Your task to perform on an android device: empty trash in the gmail app Image 0: 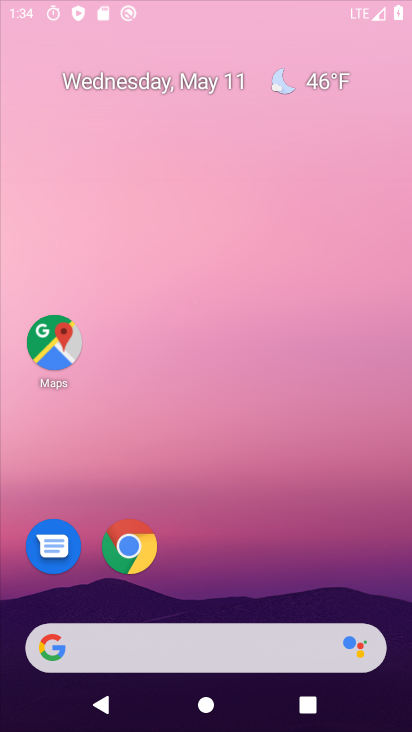
Step 0: drag from (257, 473) to (216, 207)
Your task to perform on an android device: empty trash in the gmail app Image 1: 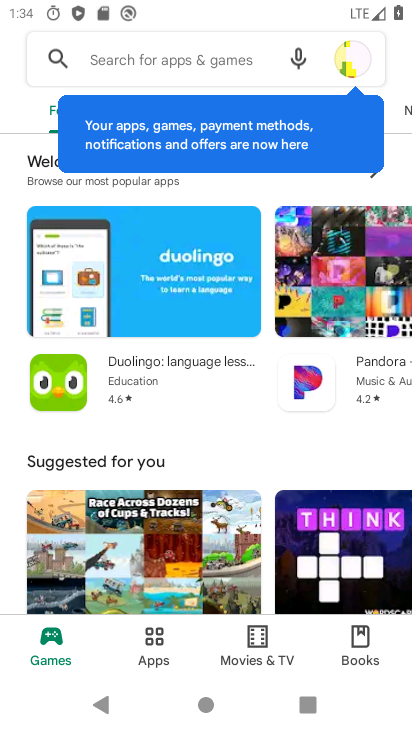
Step 1: press home button
Your task to perform on an android device: empty trash in the gmail app Image 2: 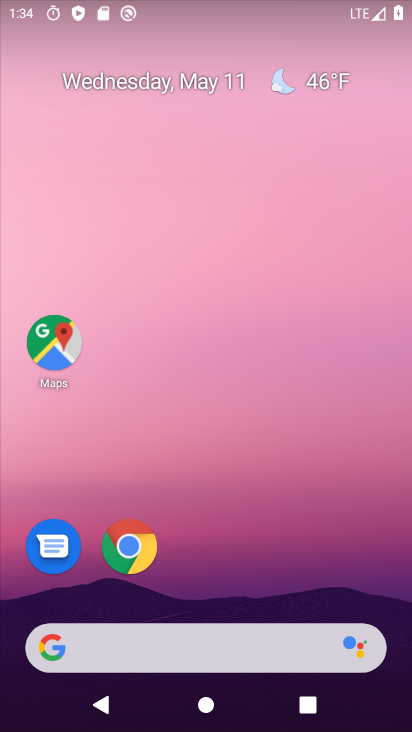
Step 2: drag from (240, 679) to (251, 385)
Your task to perform on an android device: empty trash in the gmail app Image 3: 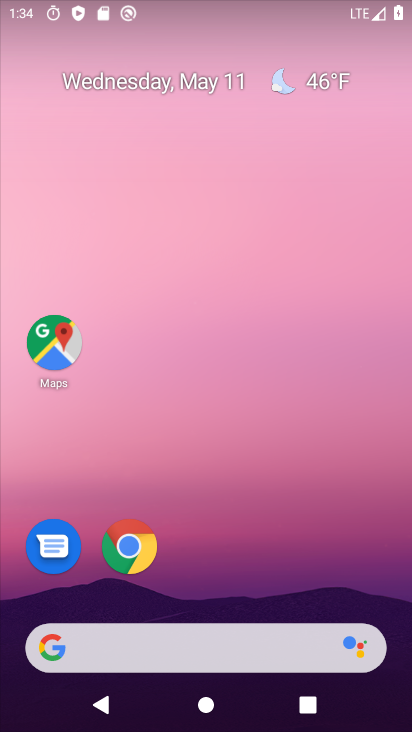
Step 3: drag from (258, 670) to (269, 96)
Your task to perform on an android device: empty trash in the gmail app Image 4: 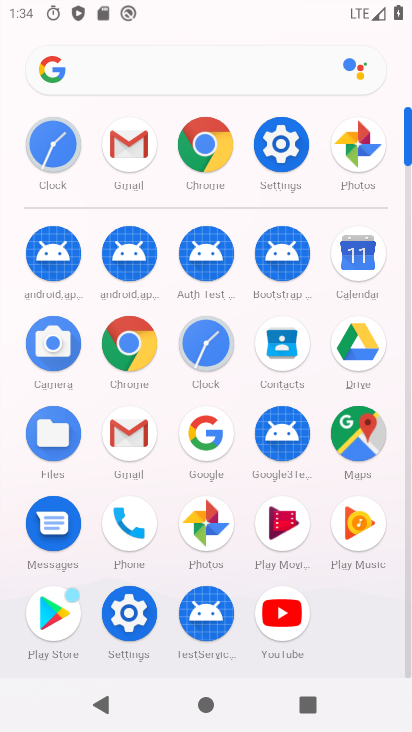
Step 4: click (133, 430)
Your task to perform on an android device: empty trash in the gmail app Image 5: 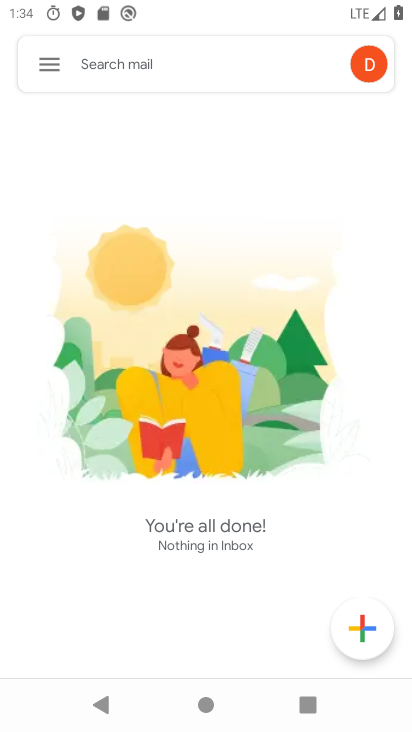
Step 5: click (44, 68)
Your task to perform on an android device: empty trash in the gmail app Image 6: 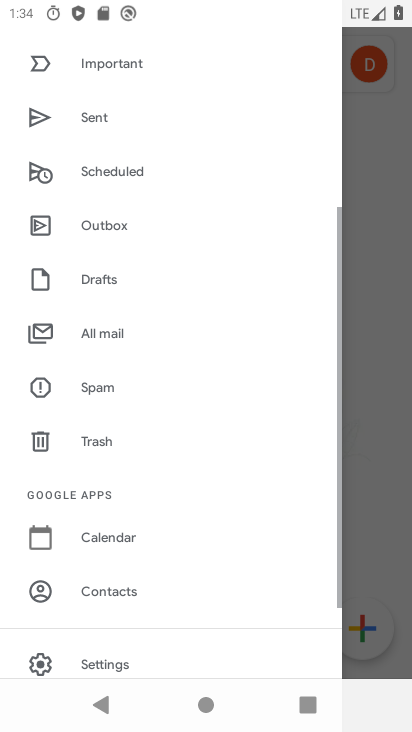
Step 6: click (98, 428)
Your task to perform on an android device: empty trash in the gmail app Image 7: 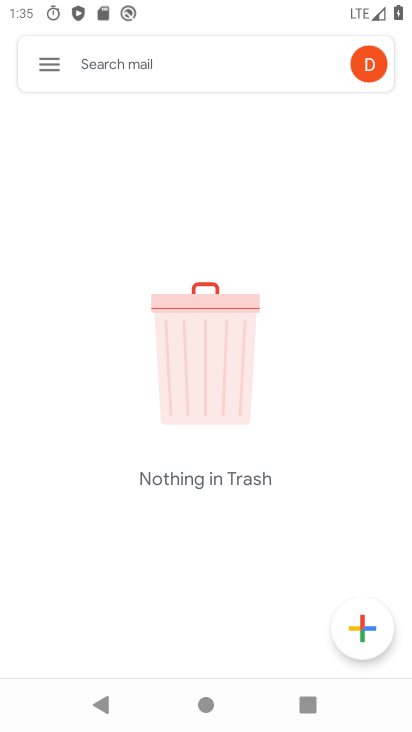
Step 7: task complete